Your task to perform on an android device: turn on sleep mode Image 0: 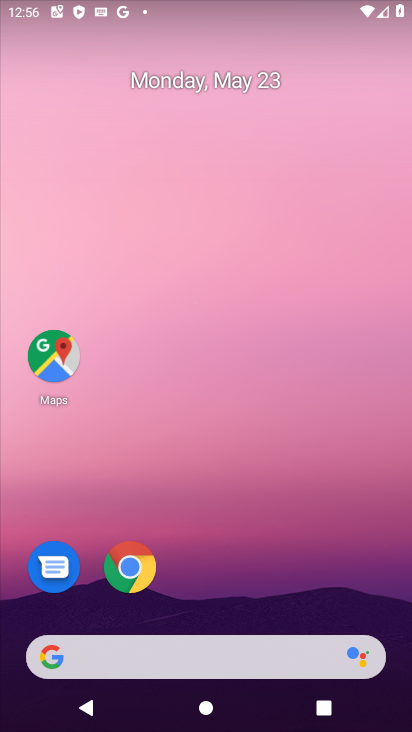
Step 0: click (266, 189)
Your task to perform on an android device: turn on sleep mode Image 1: 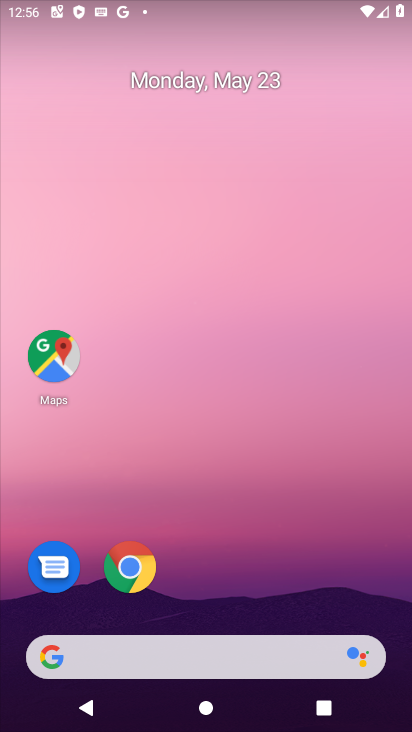
Step 1: drag from (231, 624) to (232, 46)
Your task to perform on an android device: turn on sleep mode Image 2: 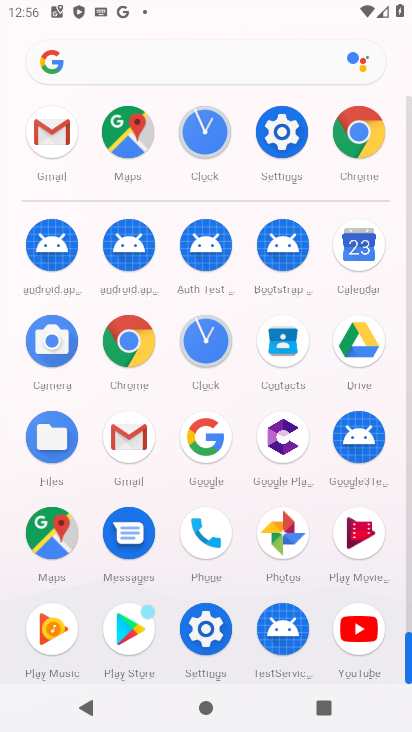
Step 2: click (292, 123)
Your task to perform on an android device: turn on sleep mode Image 3: 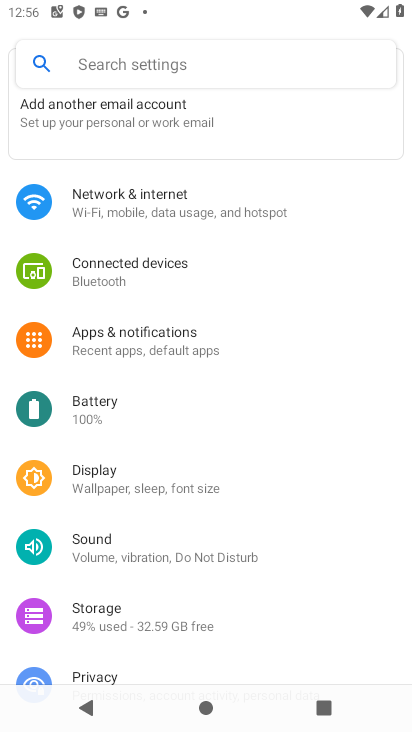
Step 3: click (194, 476)
Your task to perform on an android device: turn on sleep mode Image 4: 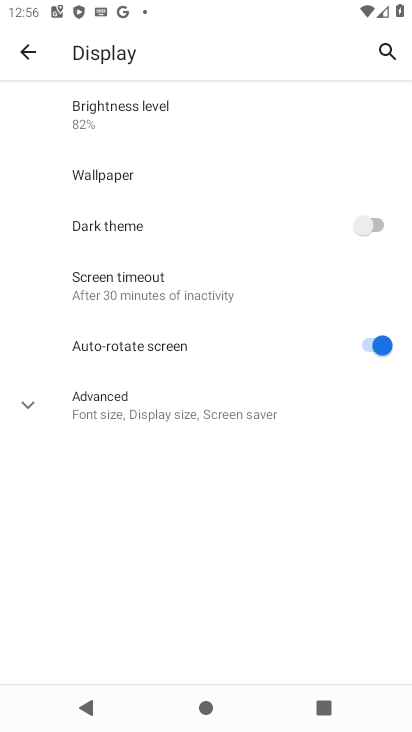
Step 4: click (313, 404)
Your task to perform on an android device: turn on sleep mode Image 5: 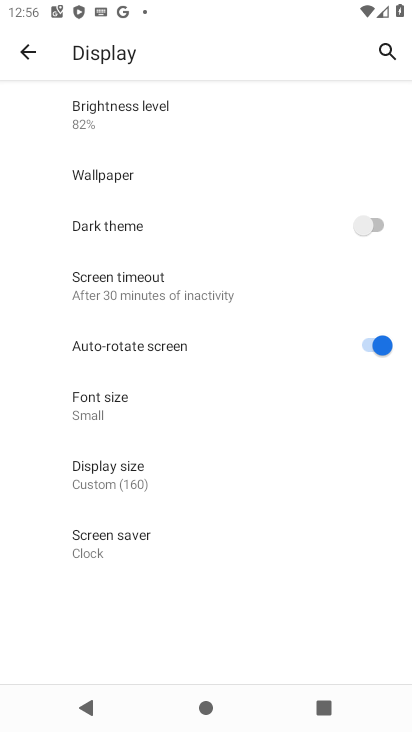
Step 5: task complete